Your task to perform on an android device: Open accessibility settings Image 0: 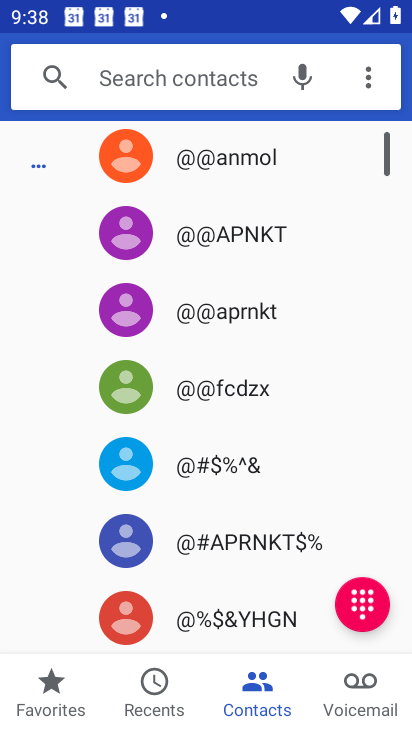
Step 0: press home button
Your task to perform on an android device: Open accessibility settings Image 1: 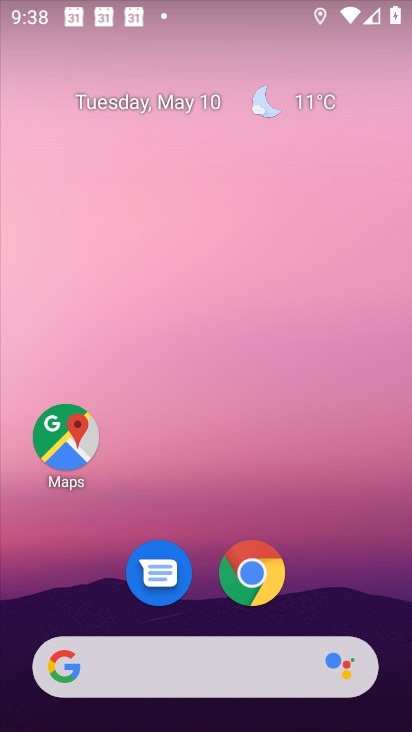
Step 1: drag from (336, 570) to (289, 211)
Your task to perform on an android device: Open accessibility settings Image 2: 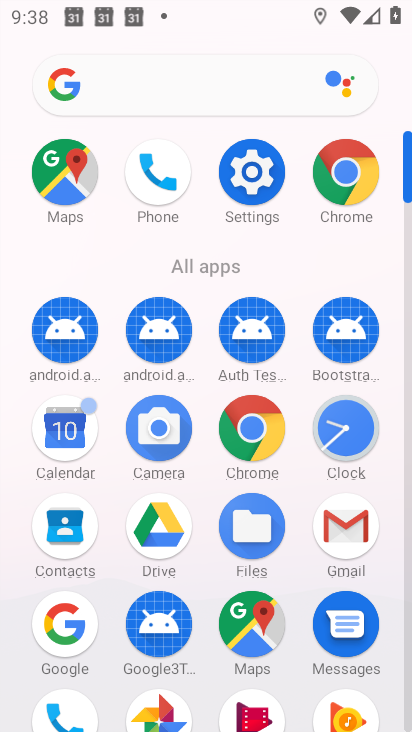
Step 2: click (241, 183)
Your task to perform on an android device: Open accessibility settings Image 3: 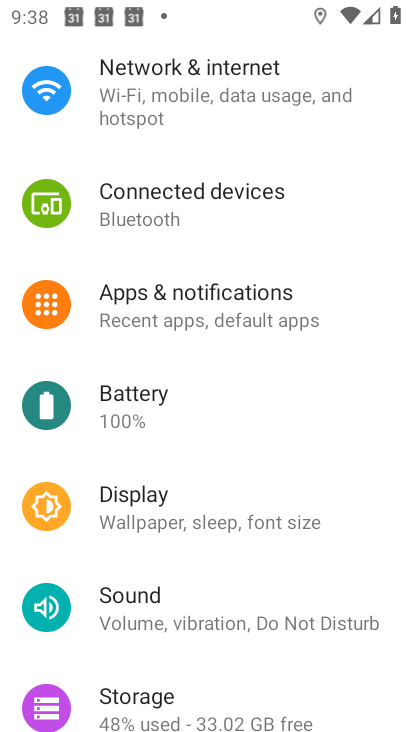
Step 3: drag from (209, 642) to (223, 322)
Your task to perform on an android device: Open accessibility settings Image 4: 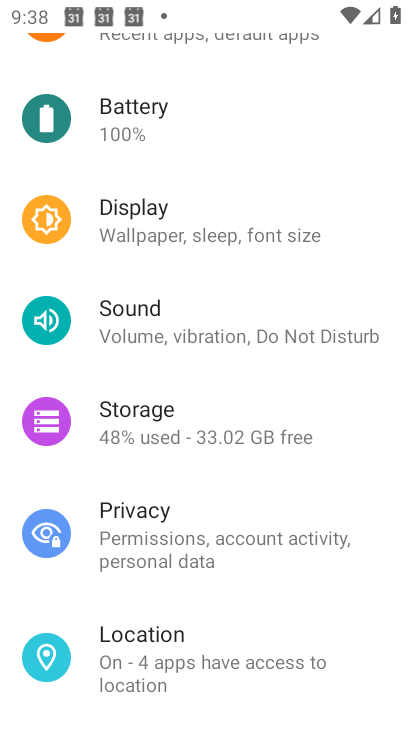
Step 4: drag from (260, 641) to (323, 217)
Your task to perform on an android device: Open accessibility settings Image 5: 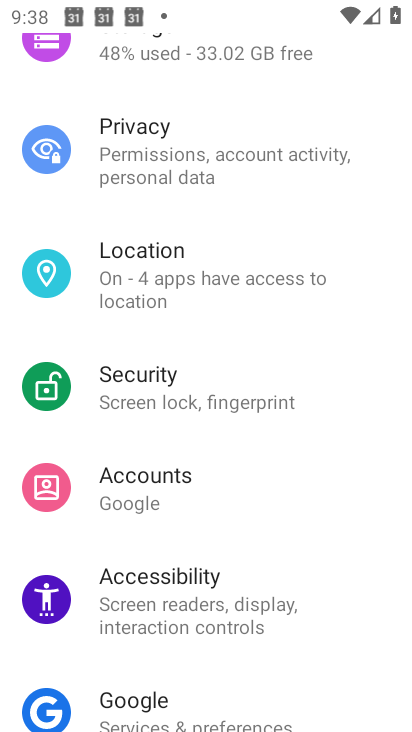
Step 5: click (237, 620)
Your task to perform on an android device: Open accessibility settings Image 6: 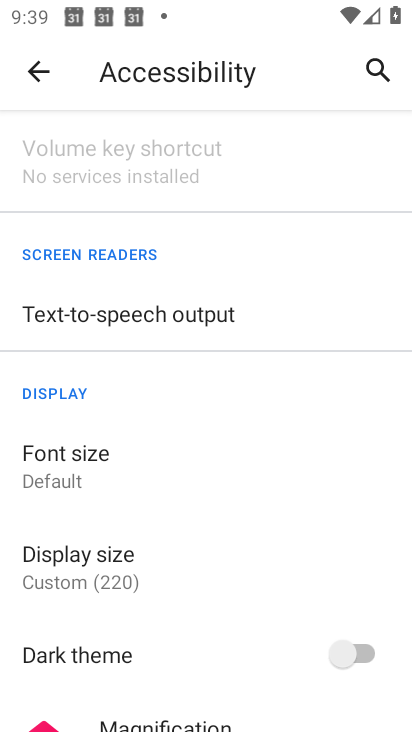
Step 6: task complete